Your task to perform on an android device: What is the news today? Image 0: 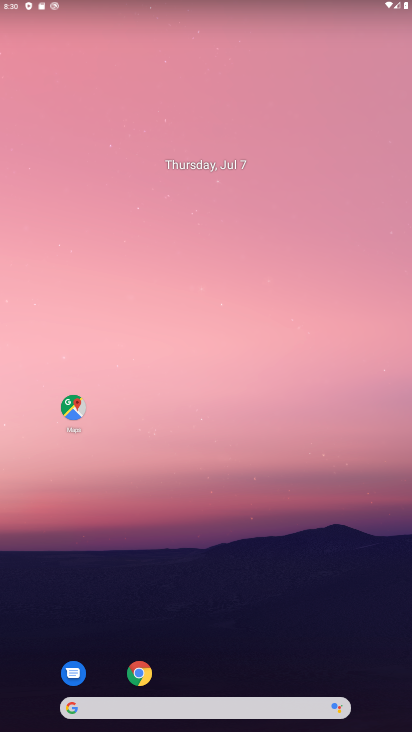
Step 0: drag from (224, 695) to (313, 167)
Your task to perform on an android device: What is the news today? Image 1: 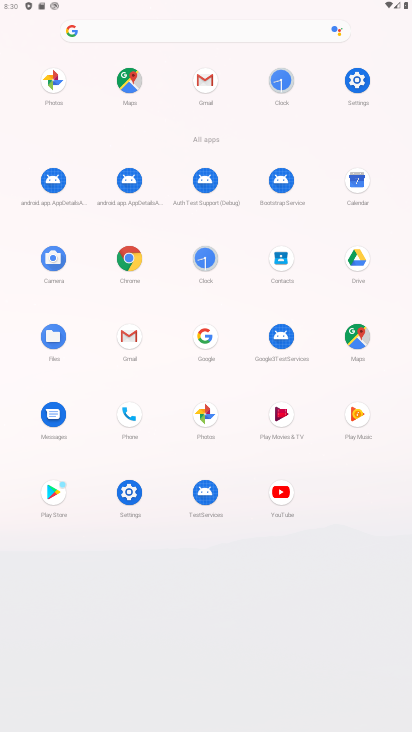
Step 1: click (126, 255)
Your task to perform on an android device: What is the news today? Image 2: 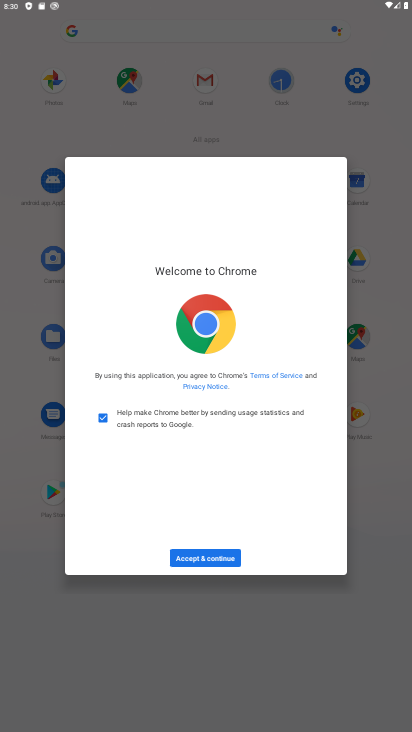
Step 2: click (236, 564)
Your task to perform on an android device: What is the news today? Image 3: 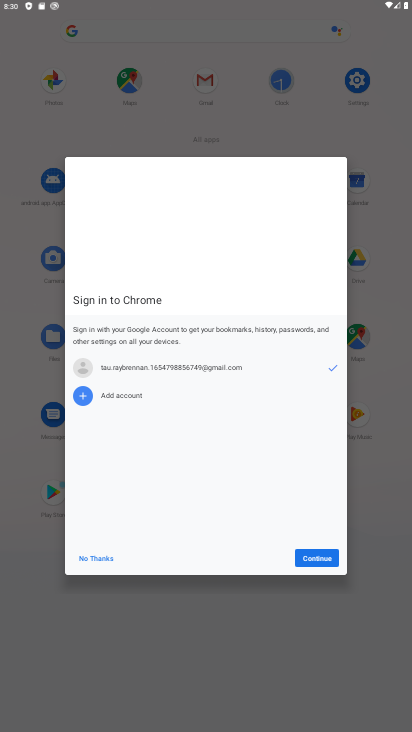
Step 3: click (336, 553)
Your task to perform on an android device: What is the news today? Image 4: 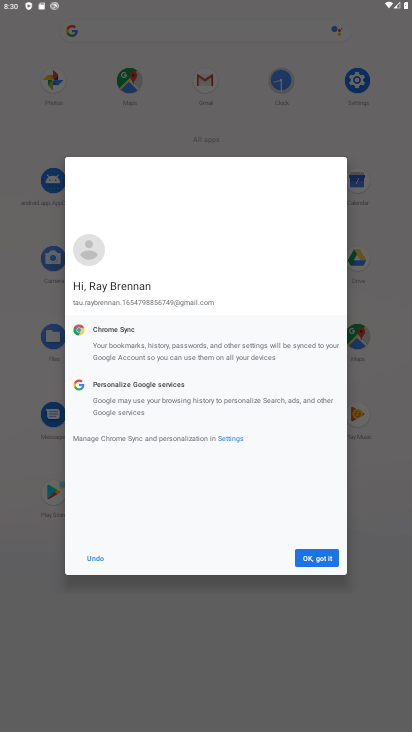
Step 4: click (329, 559)
Your task to perform on an android device: What is the news today? Image 5: 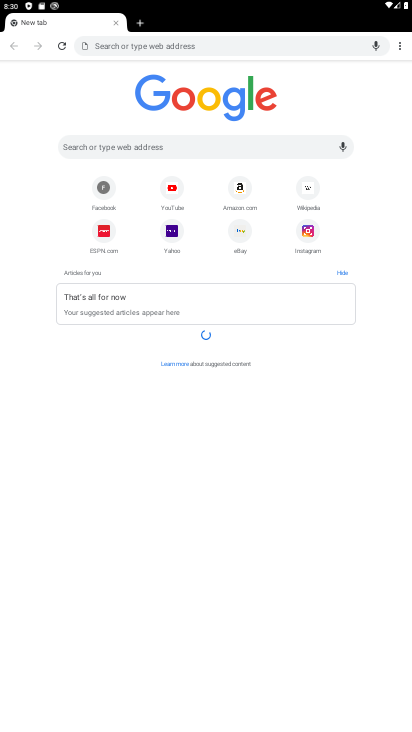
Step 5: task complete